Your task to perform on an android device: change timer sound Image 0: 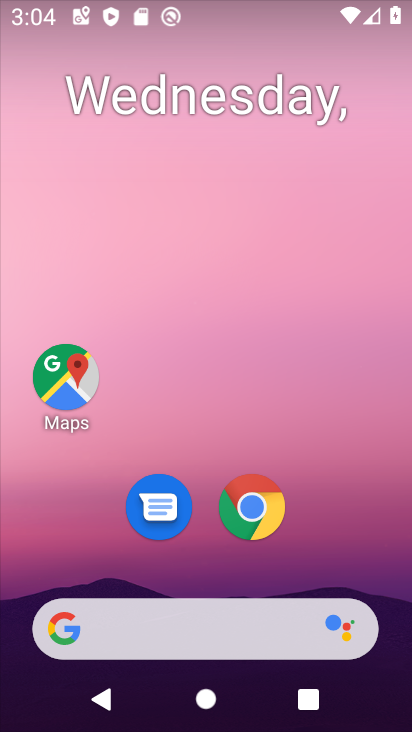
Step 0: drag from (308, 571) to (319, 308)
Your task to perform on an android device: change timer sound Image 1: 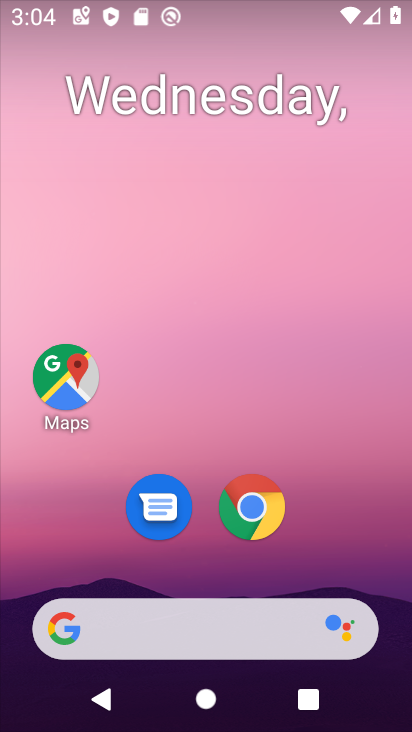
Step 1: drag from (382, 549) to (390, 232)
Your task to perform on an android device: change timer sound Image 2: 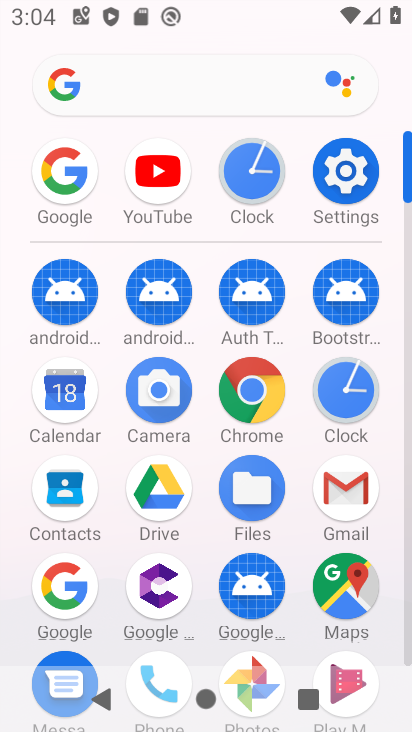
Step 2: click (237, 175)
Your task to perform on an android device: change timer sound Image 3: 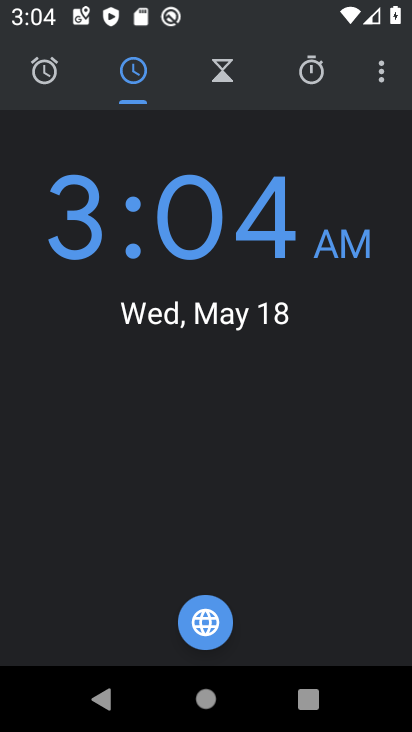
Step 3: click (359, 74)
Your task to perform on an android device: change timer sound Image 4: 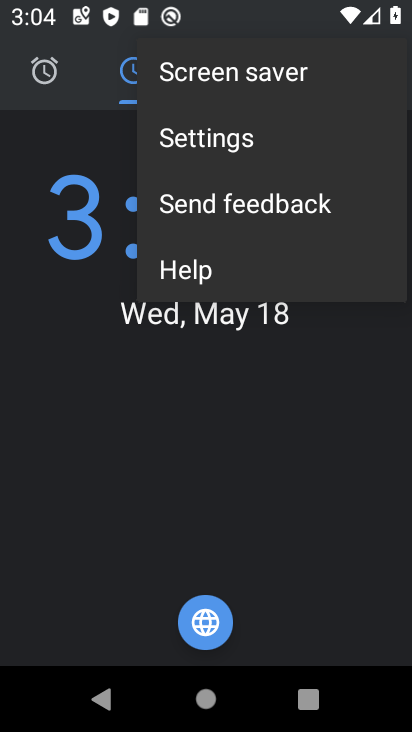
Step 4: click (278, 149)
Your task to perform on an android device: change timer sound Image 5: 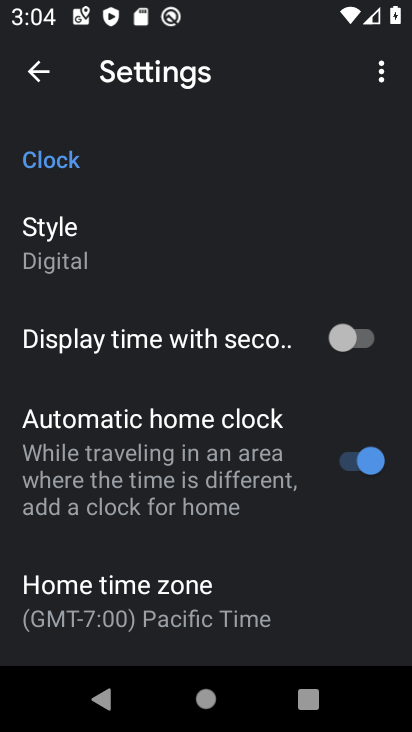
Step 5: drag from (312, 620) to (264, 335)
Your task to perform on an android device: change timer sound Image 6: 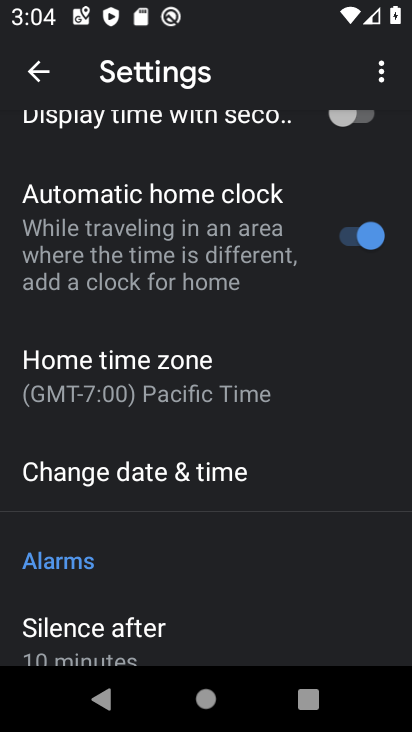
Step 6: drag from (230, 520) to (235, 250)
Your task to perform on an android device: change timer sound Image 7: 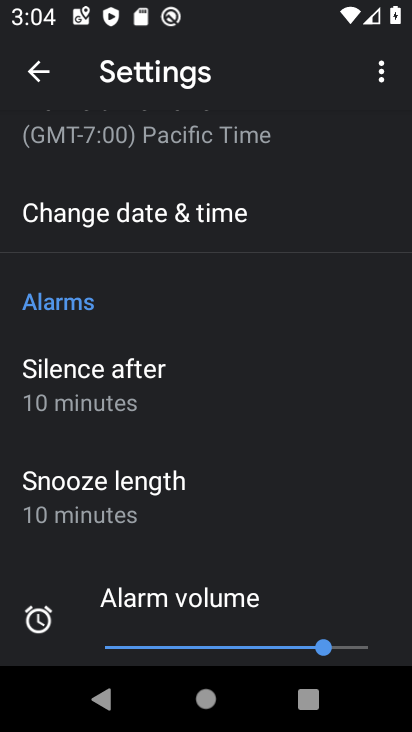
Step 7: drag from (294, 520) to (253, 202)
Your task to perform on an android device: change timer sound Image 8: 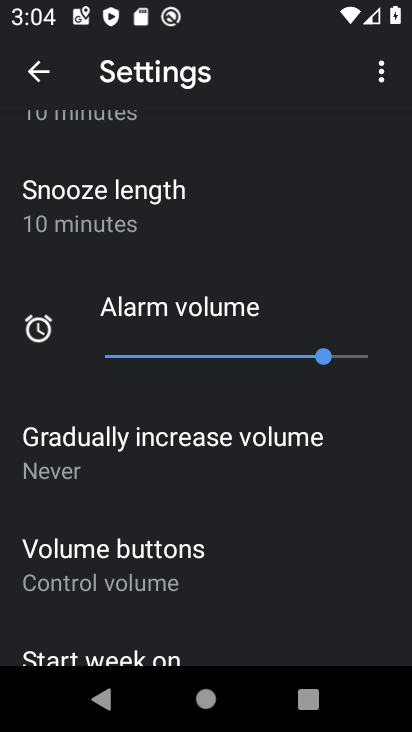
Step 8: drag from (229, 532) to (229, 27)
Your task to perform on an android device: change timer sound Image 9: 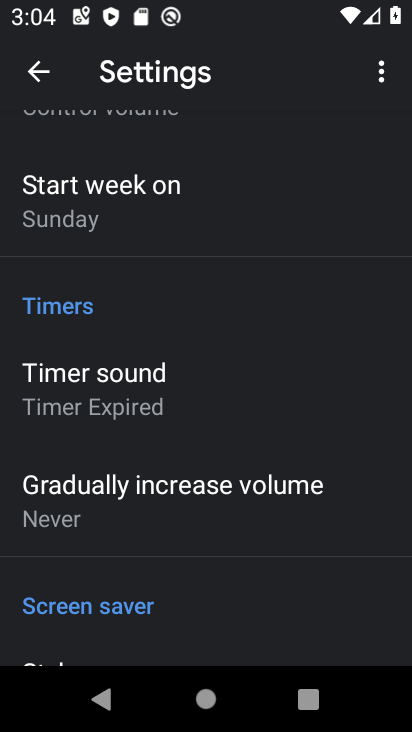
Step 9: click (101, 382)
Your task to perform on an android device: change timer sound Image 10: 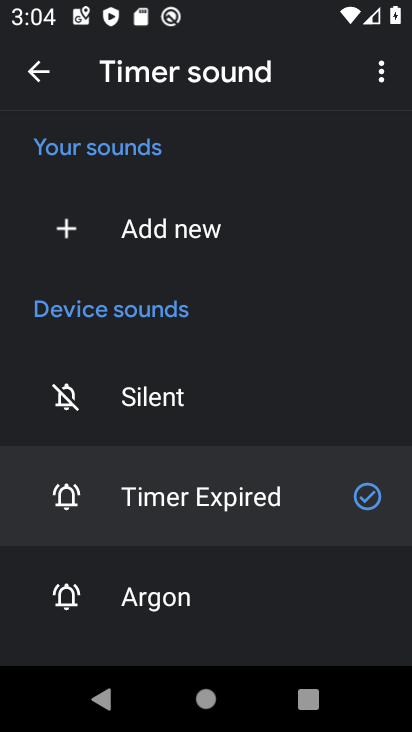
Step 10: click (209, 601)
Your task to perform on an android device: change timer sound Image 11: 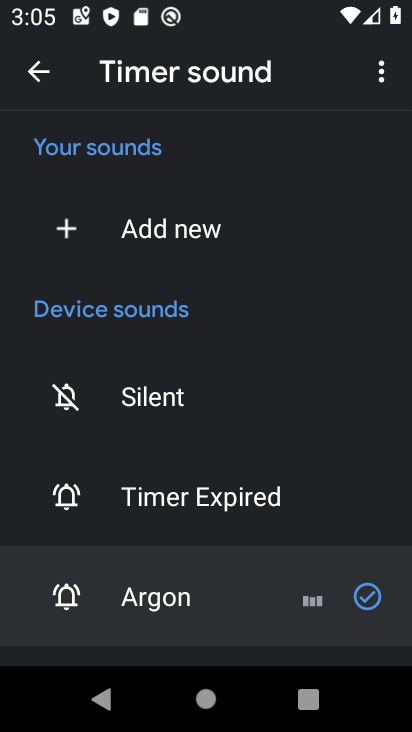
Step 11: task complete